Your task to perform on an android device: add a contact Image 0: 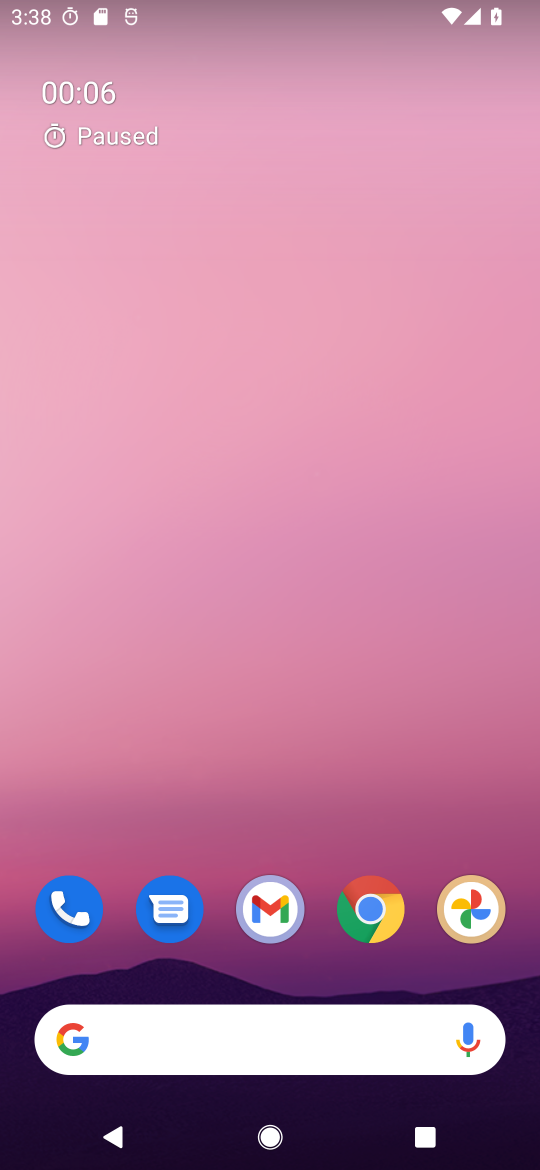
Step 0: drag from (286, 969) to (309, 201)
Your task to perform on an android device: add a contact Image 1: 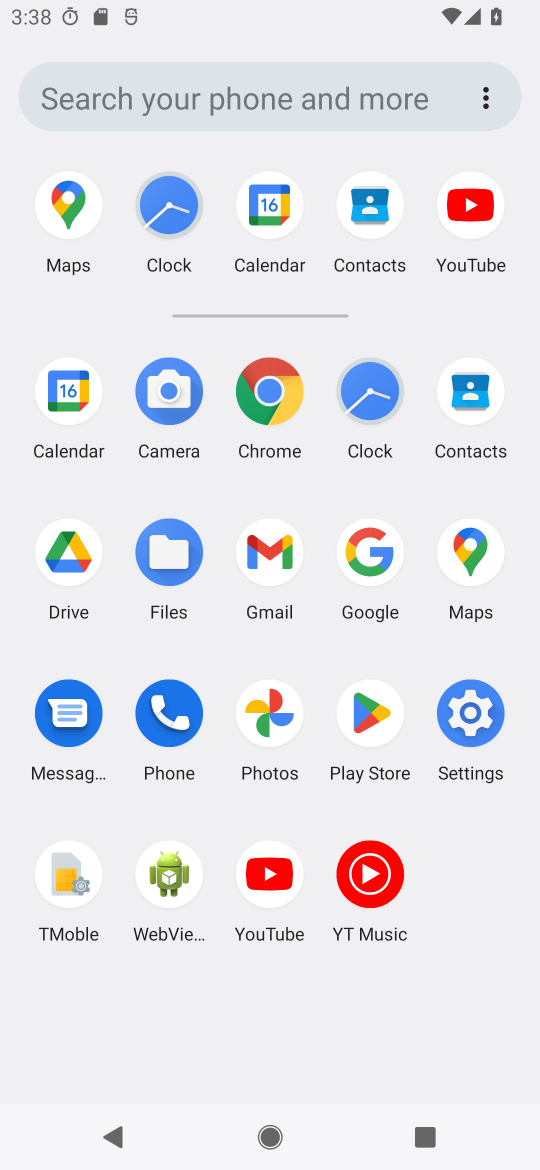
Step 1: click (470, 413)
Your task to perform on an android device: add a contact Image 2: 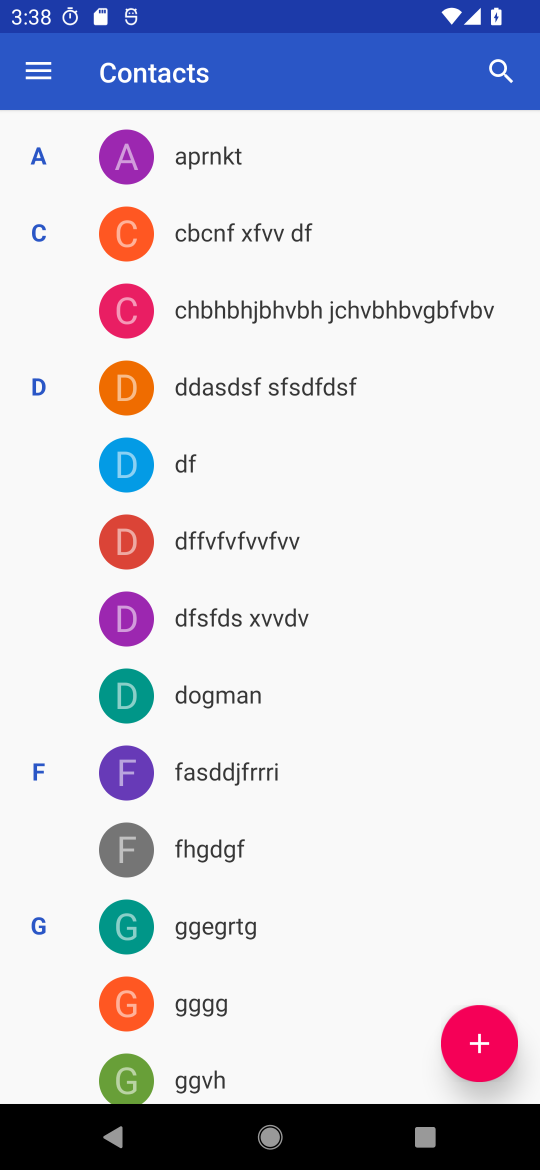
Step 2: click (473, 1073)
Your task to perform on an android device: add a contact Image 3: 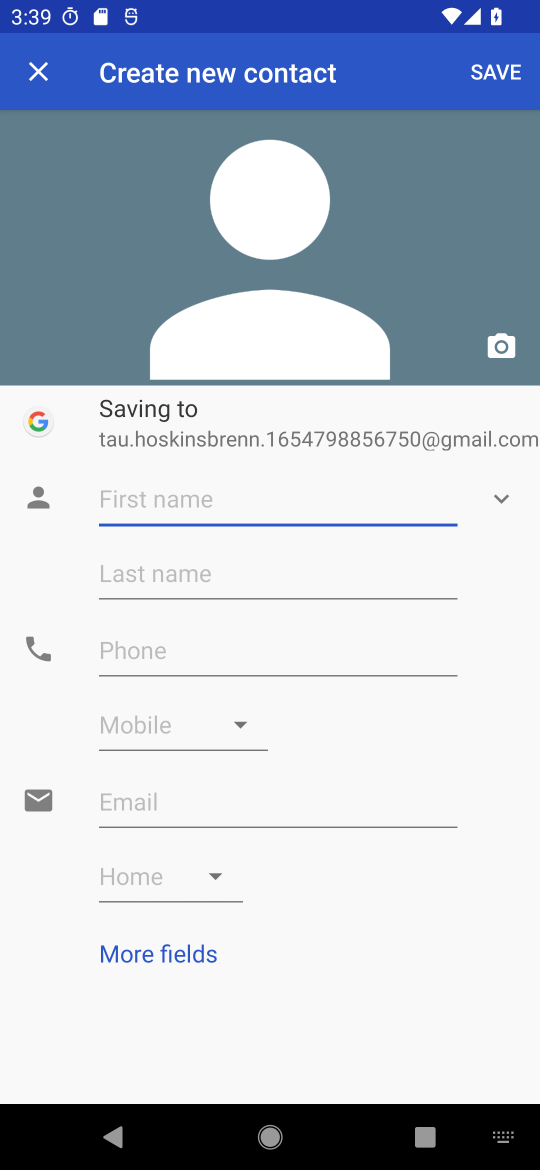
Step 3: type "Namrata"
Your task to perform on an android device: add a contact Image 4: 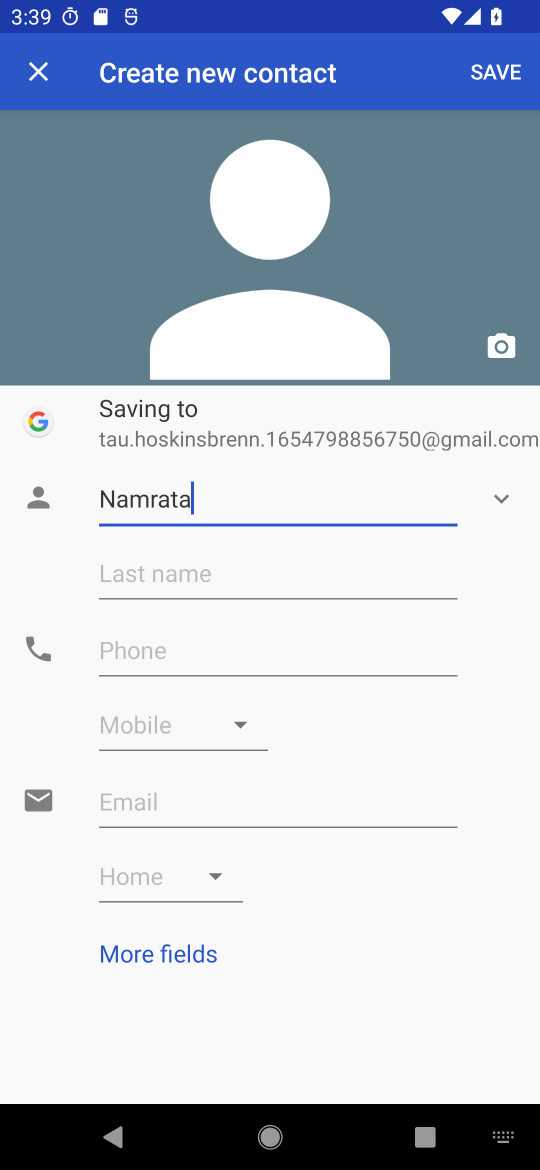
Step 4: click (284, 553)
Your task to perform on an android device: add a contact Image 5: 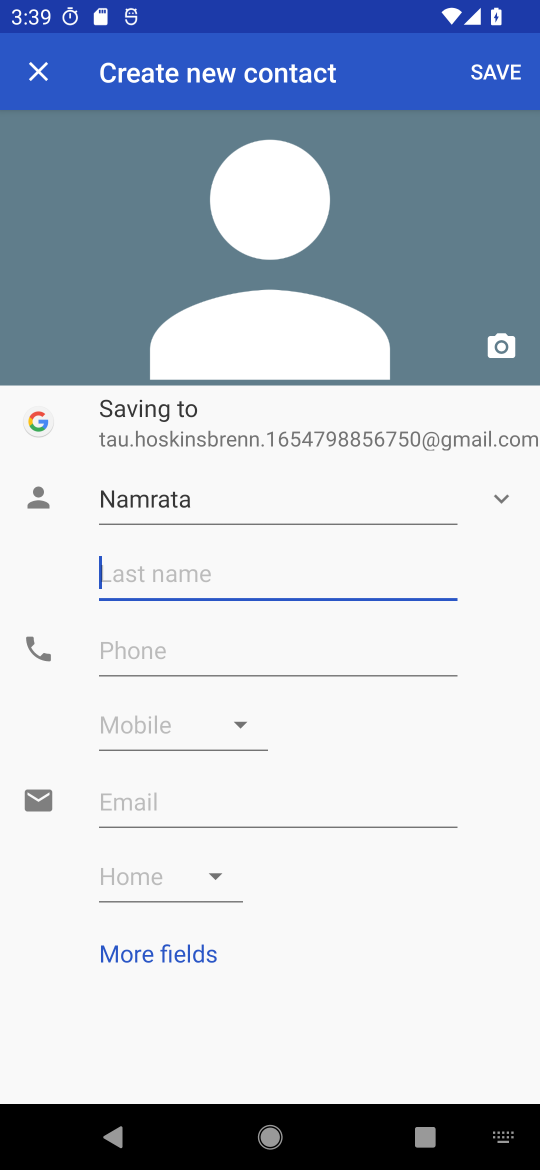
Step 5: type "saxena"
Your task to perform on an android device: add a contact Image 6: 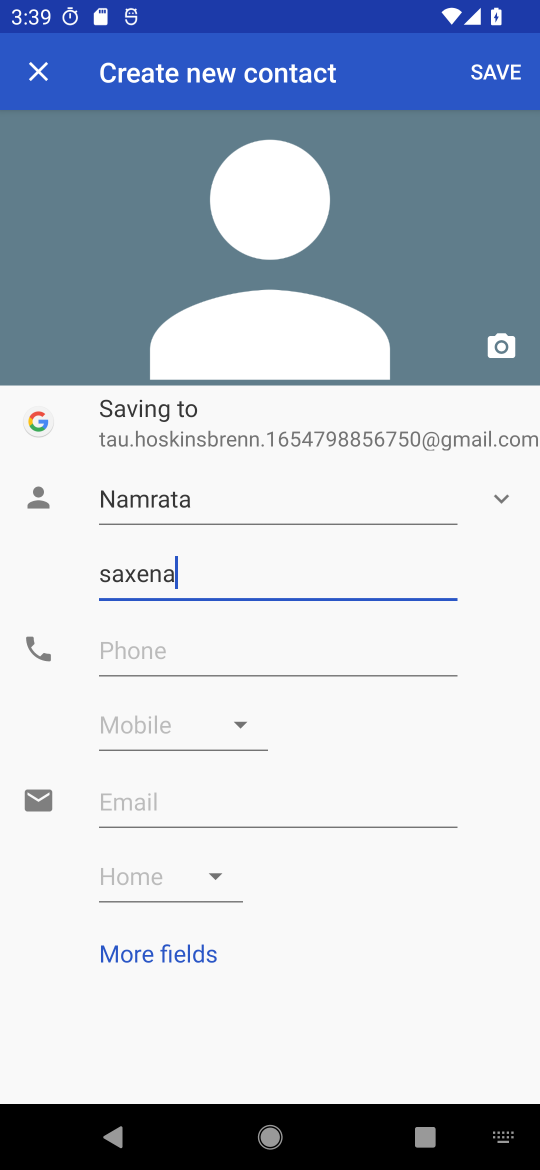
Step 6: click (410, 648)
Your task to perform on an android device: add a contact Image 7: 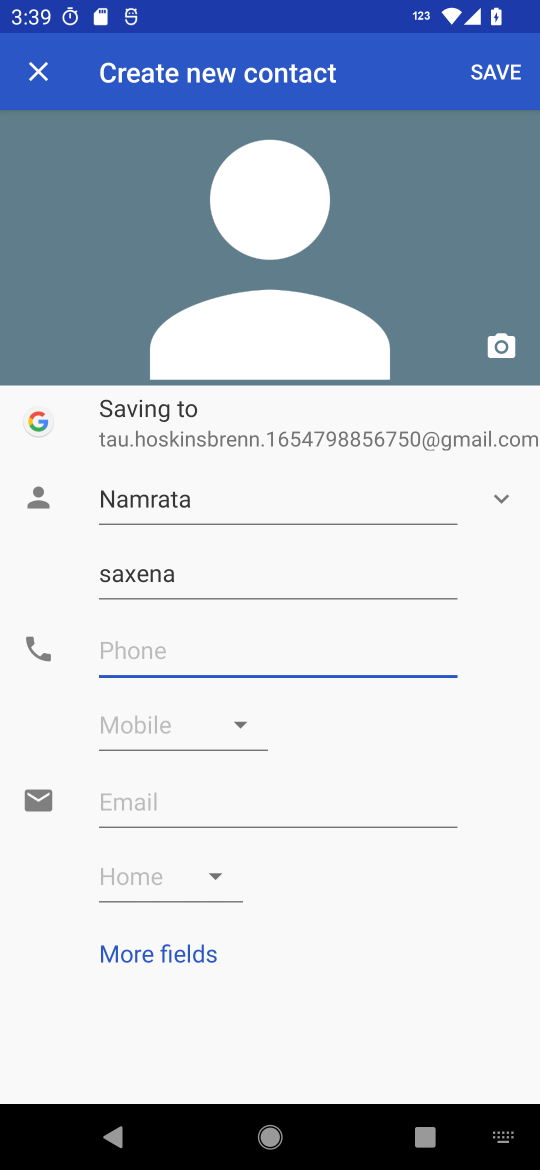
Step 7: type "9876678900"
Your task to perform on an android device: add a contact Image 8: 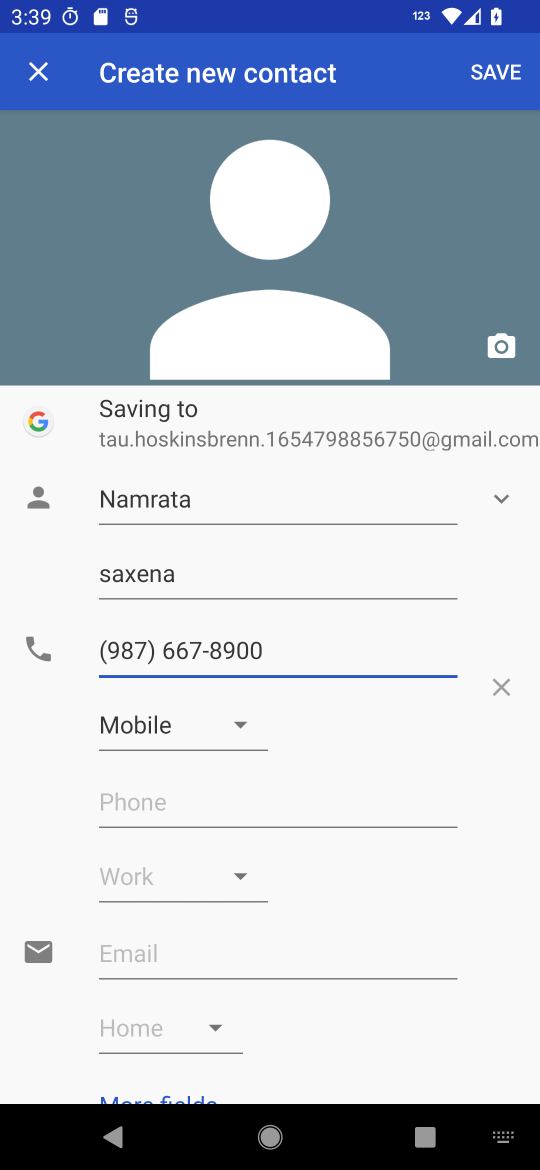
Step 8: click (502, 66)
Your task to perform on an android device: add a contact Image 9: 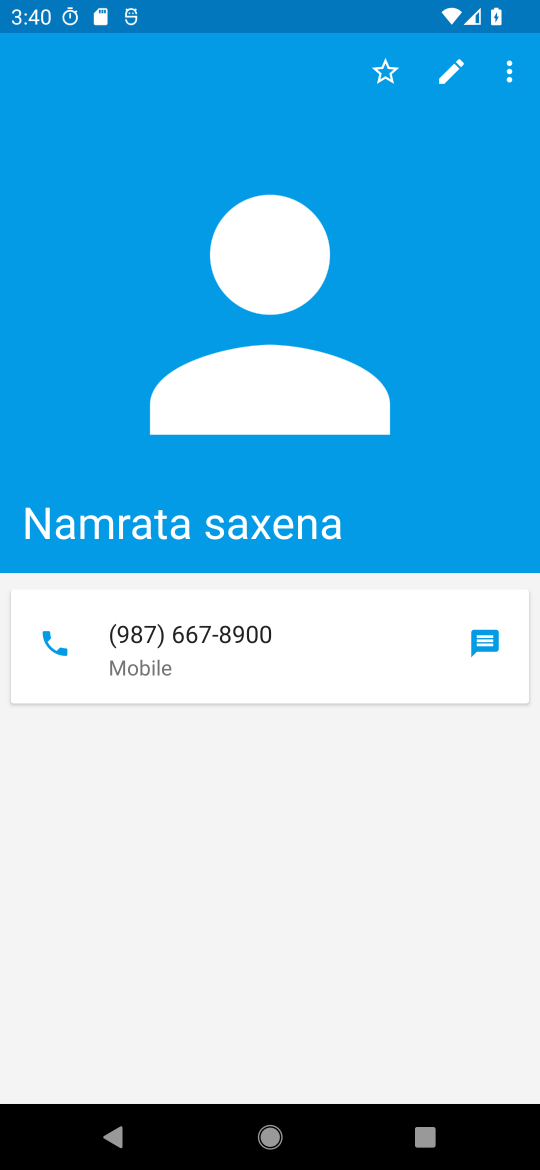
Step 9: task complete